Your task to perform on an android device: Show the shopping cart on amazon. Add "razer blade" to the cart on amazon, then select checkout. Image 0: 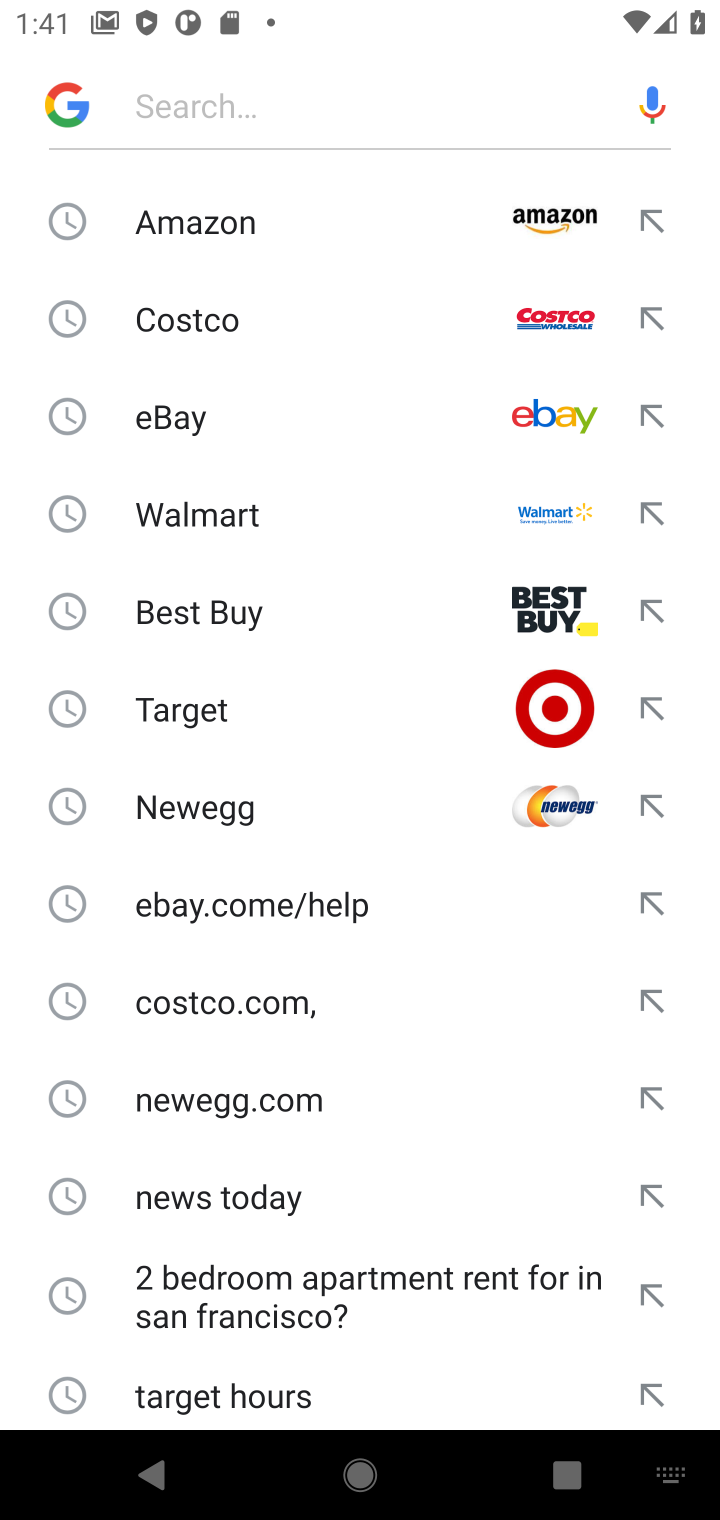
Step 0: click (233, 118)
Your task to perform on an android device: Show the shopping cart on amazon. Add "razer blade" to the cart on amazon, then select checkout. Image 1: 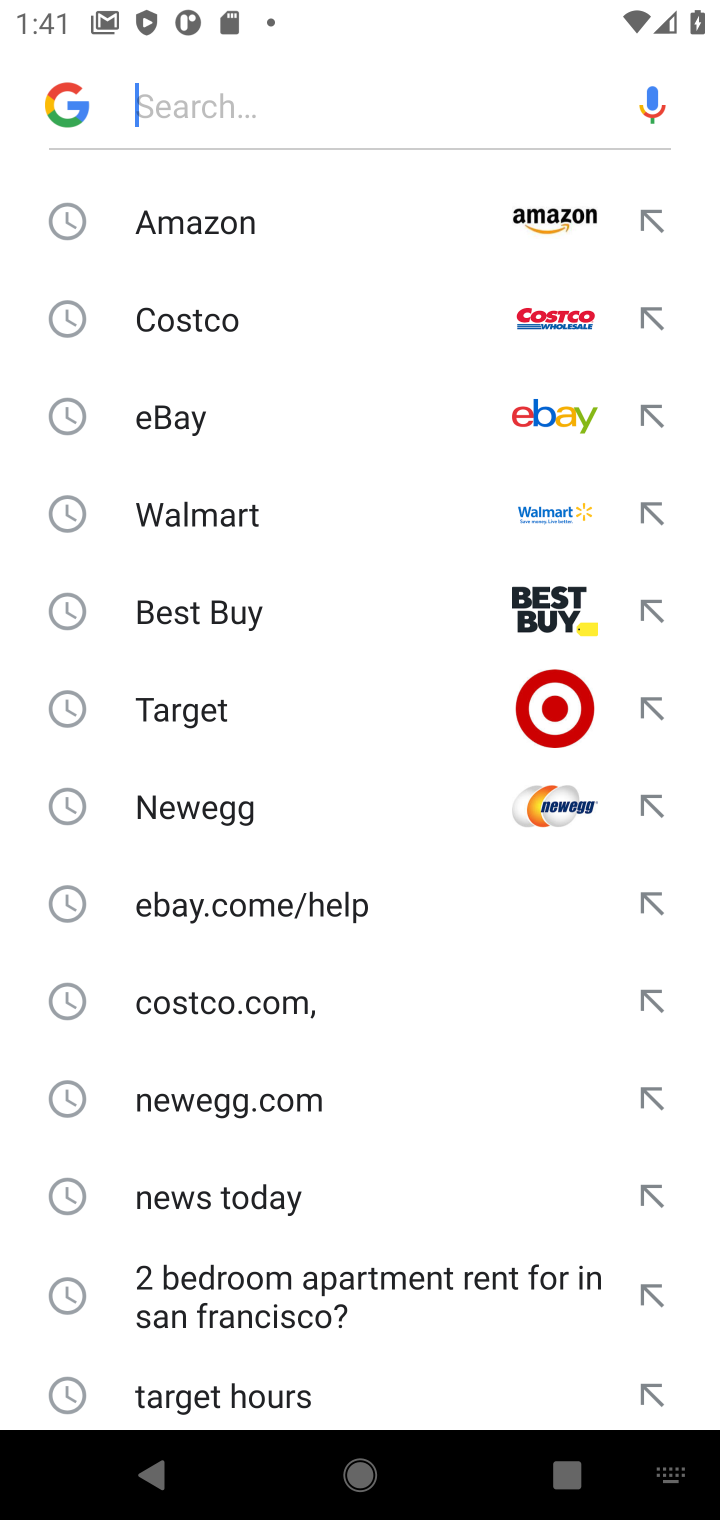
Step 1: type "amazon.com"
Your task to perform on an android device: Show the shopping cart on amazon. Add "razer blade" to the cart on amazon, then select checkout. Image 2: 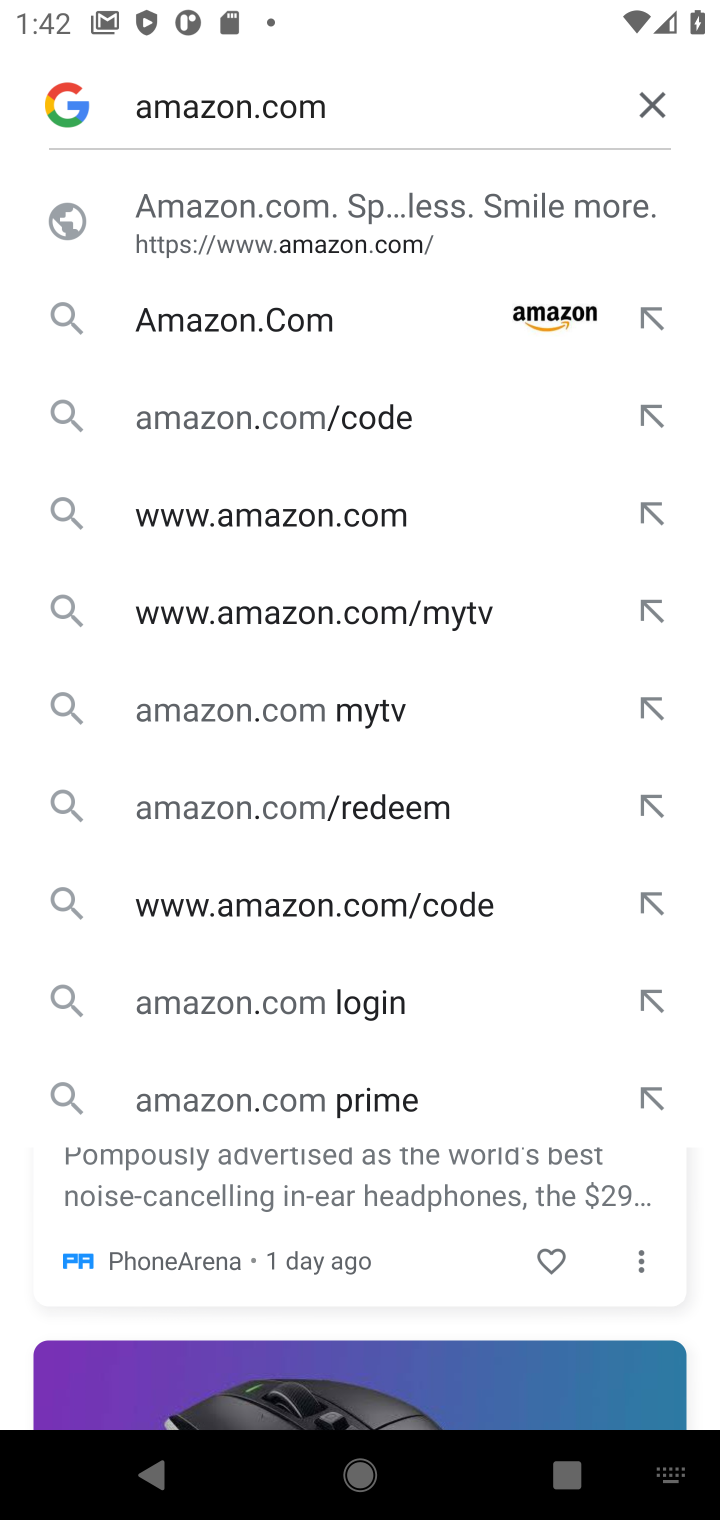
Step 2: click (213, 229)
Your task to perform on an android device: Show the shopping cart on amazon. Add "razer blade" to the cart on amazon, then select checkout. Image 3: 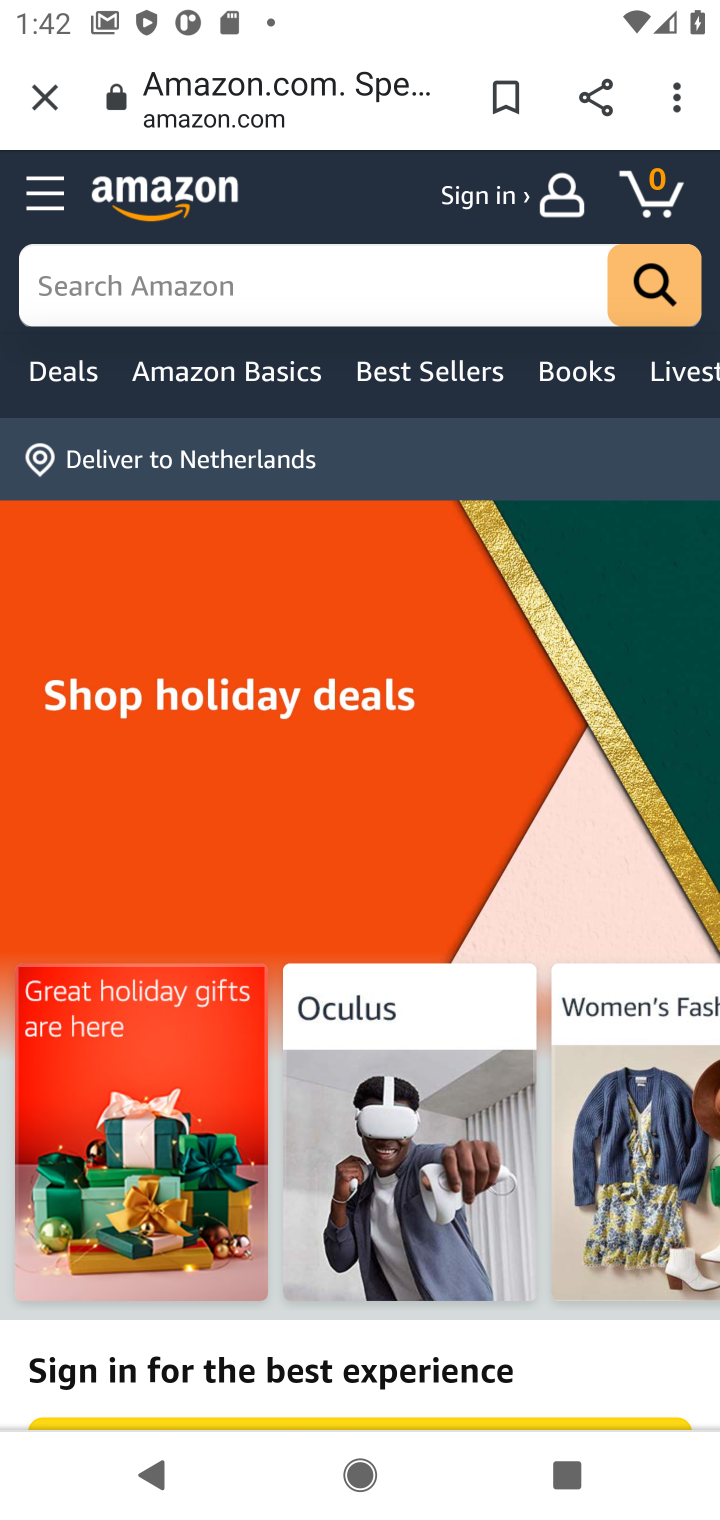
Step 3: click (652, 206)
Your task to perform on an android device: Show the shopping cart on amazon. Add "razer blade" to the cart on amazon, then select checkout. Image 4: 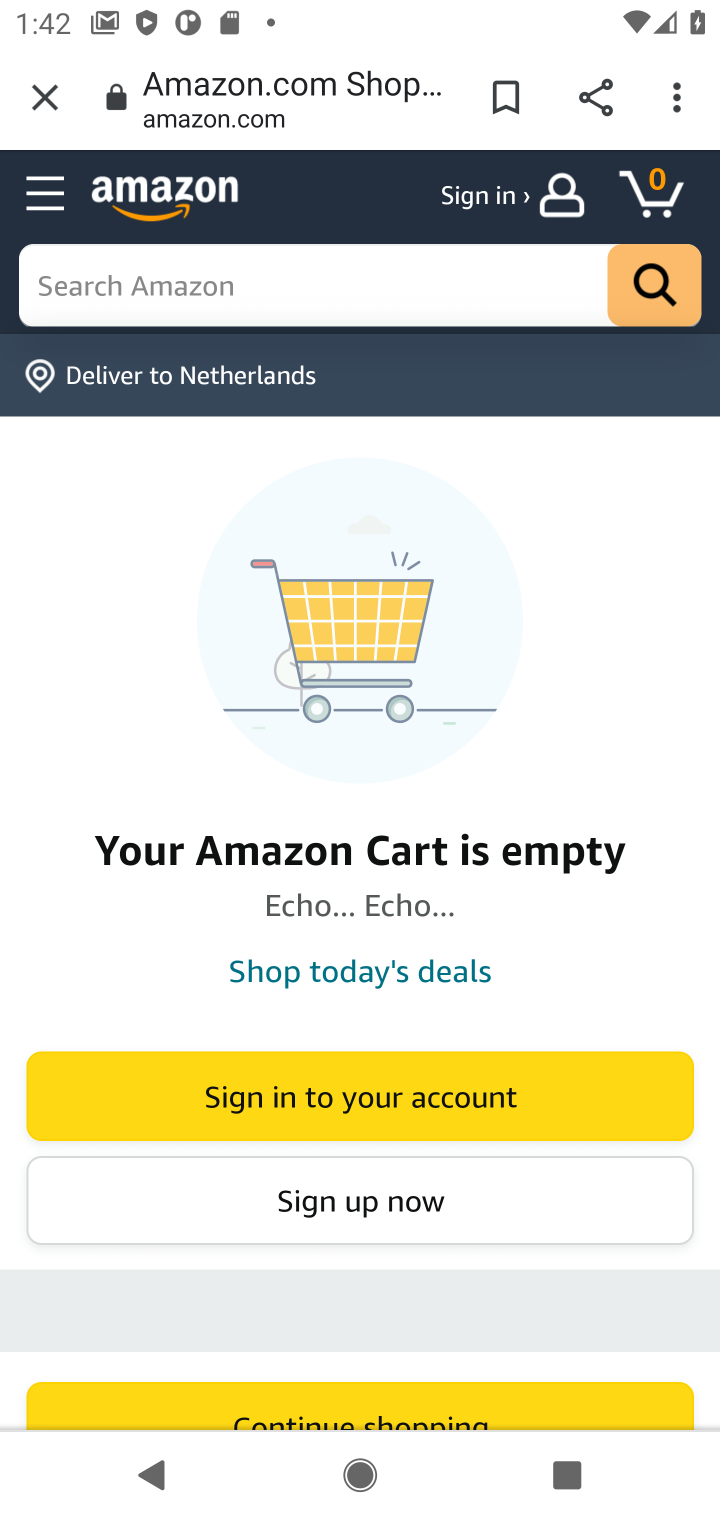
Step 4: click (112, 281)
Your task to perform on an android device: Show the shopping cart on amazon. Add "razer blade" to the cart on amazon, then select checkout. Image 5: 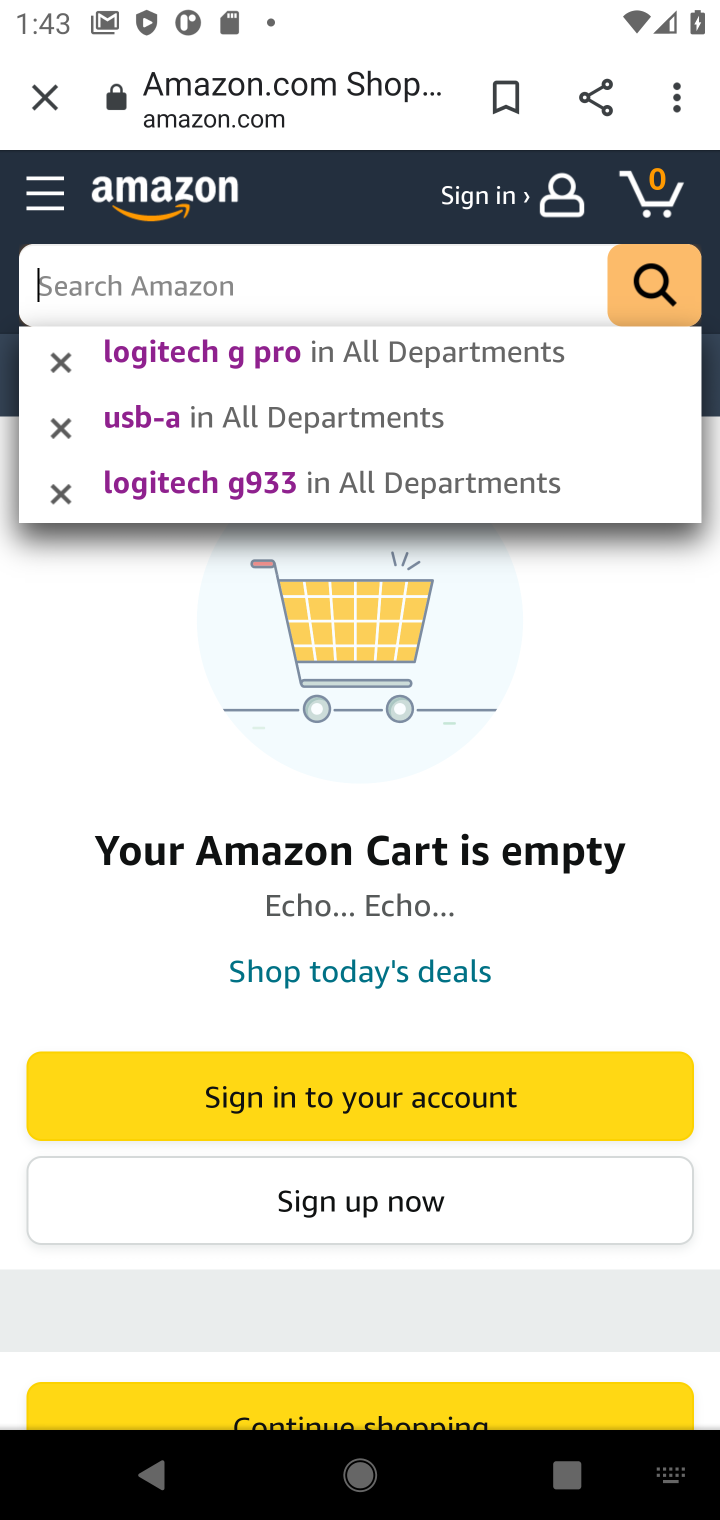
Step 5: type "razer blade"
Your task to perform on an android device: Show the shopping cart on amazon. Add "razer blade" to the cart on amazon, then select checkout. Image 6: 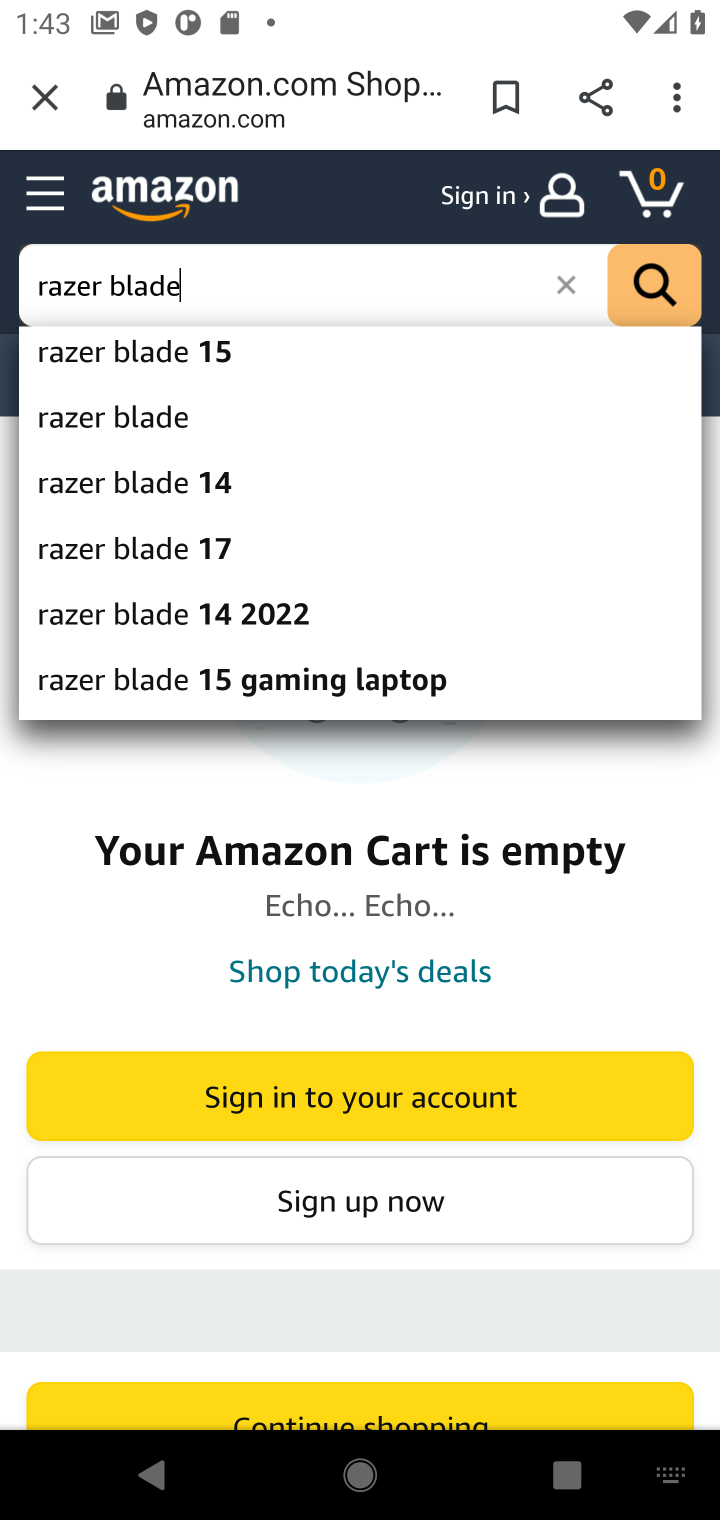
Step 6: click (117, 426)
Your task to perform on an android device: Show the shopping cart on amazon. Add "razer blade" to the cart on amazon, then select checkout. Image 7: 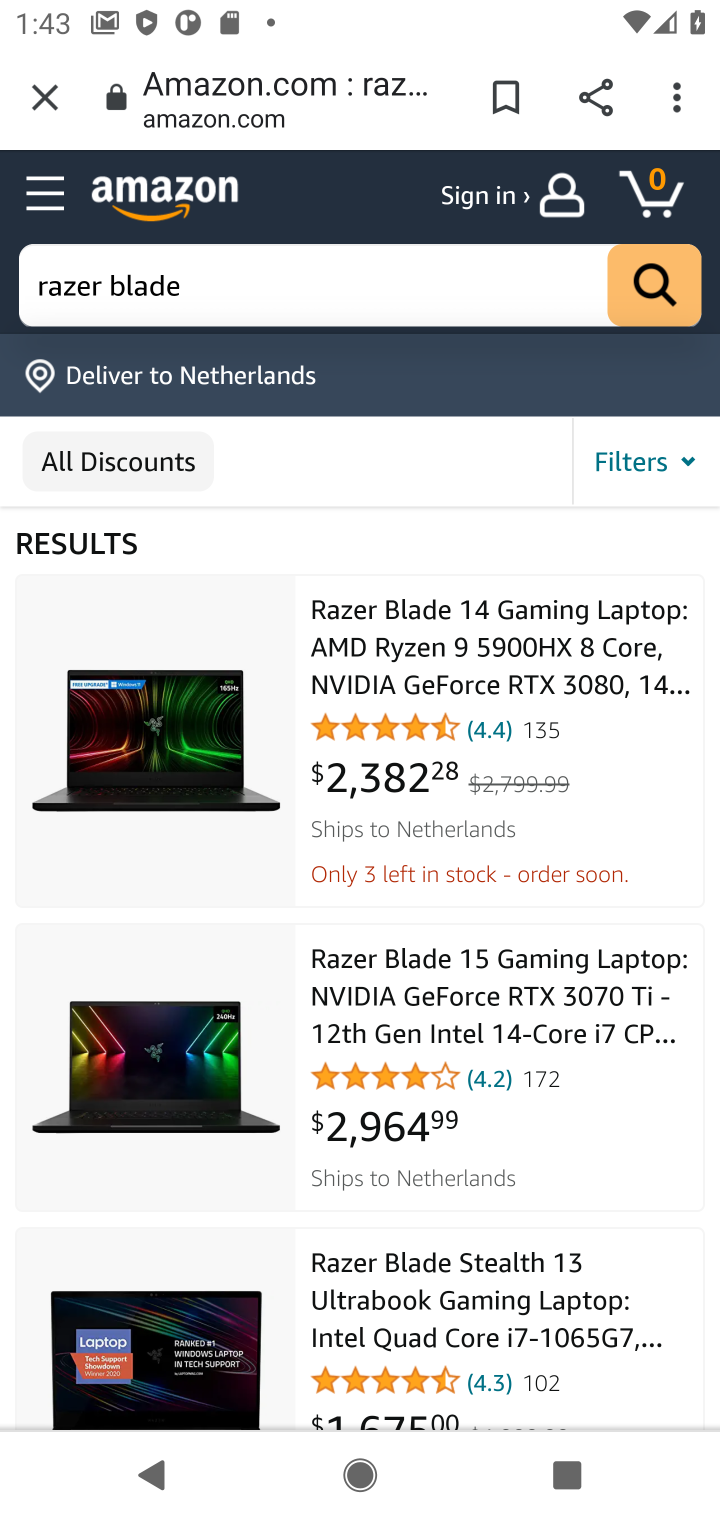
Step 7: click (419, 668)
Your task to perform on an android device: Show the shopping cart on amazon. Add "razer blade" to the cart on amazon, then select checkout. Image 8: 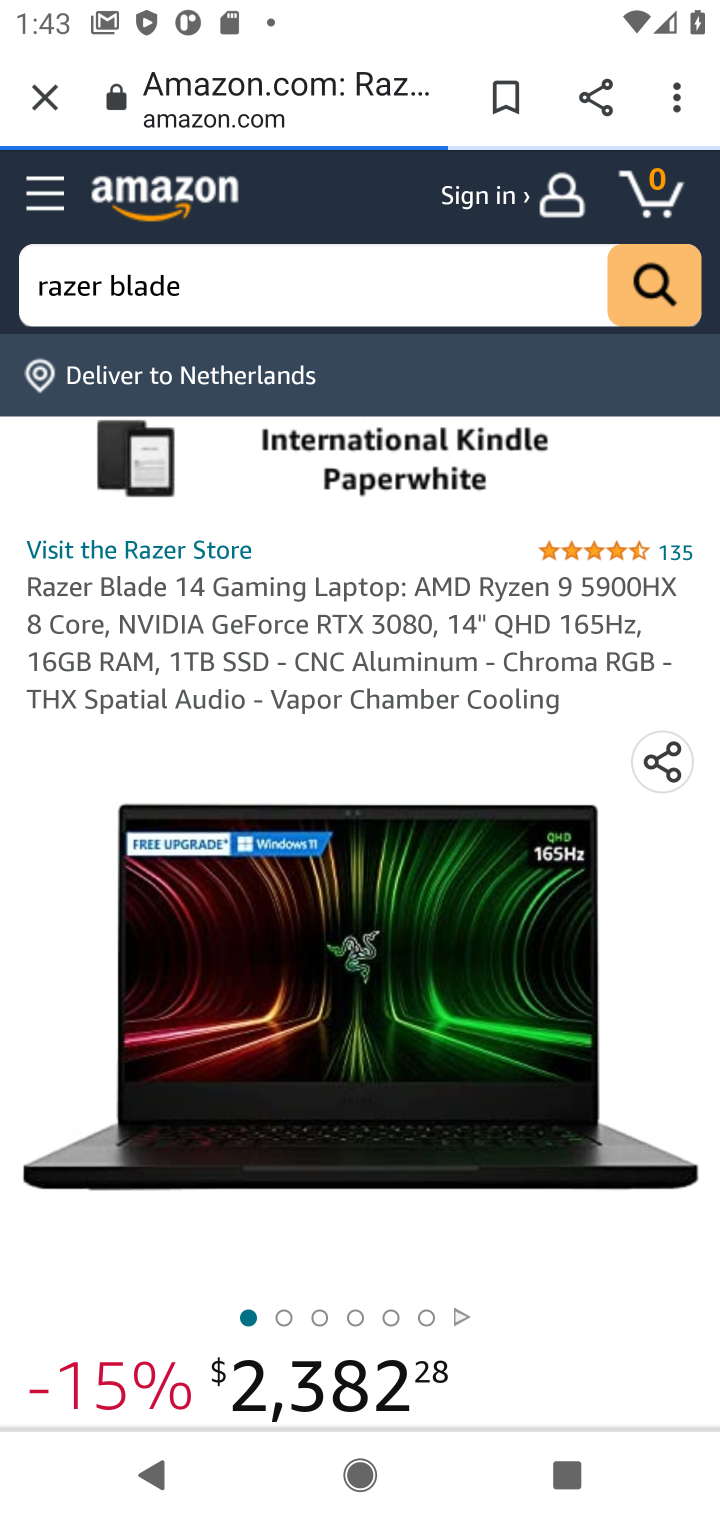
Step 8: drag from (374, 1093) to (384, 378)
Your task to perform on an android device: Show the shopping cart on amazon. Add "razer blade" to the cart on amazon, then select checkout. Image 9: 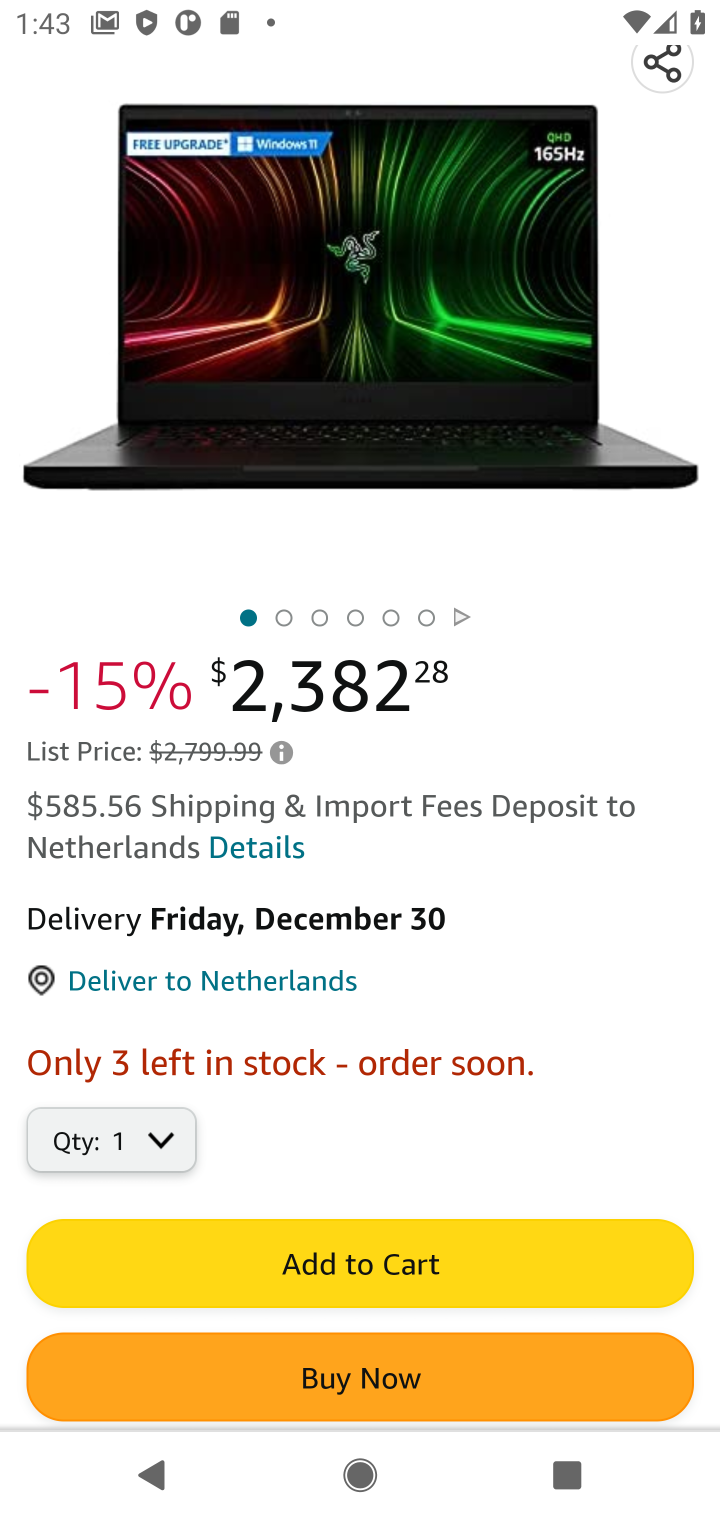
Step 9: drag from (361, 851) to (363, 588)
Your task to perform on an android device: Show the shopping cart on amazon. Add "razer blade" to the cart on amazon, then select checkout. Image 10: 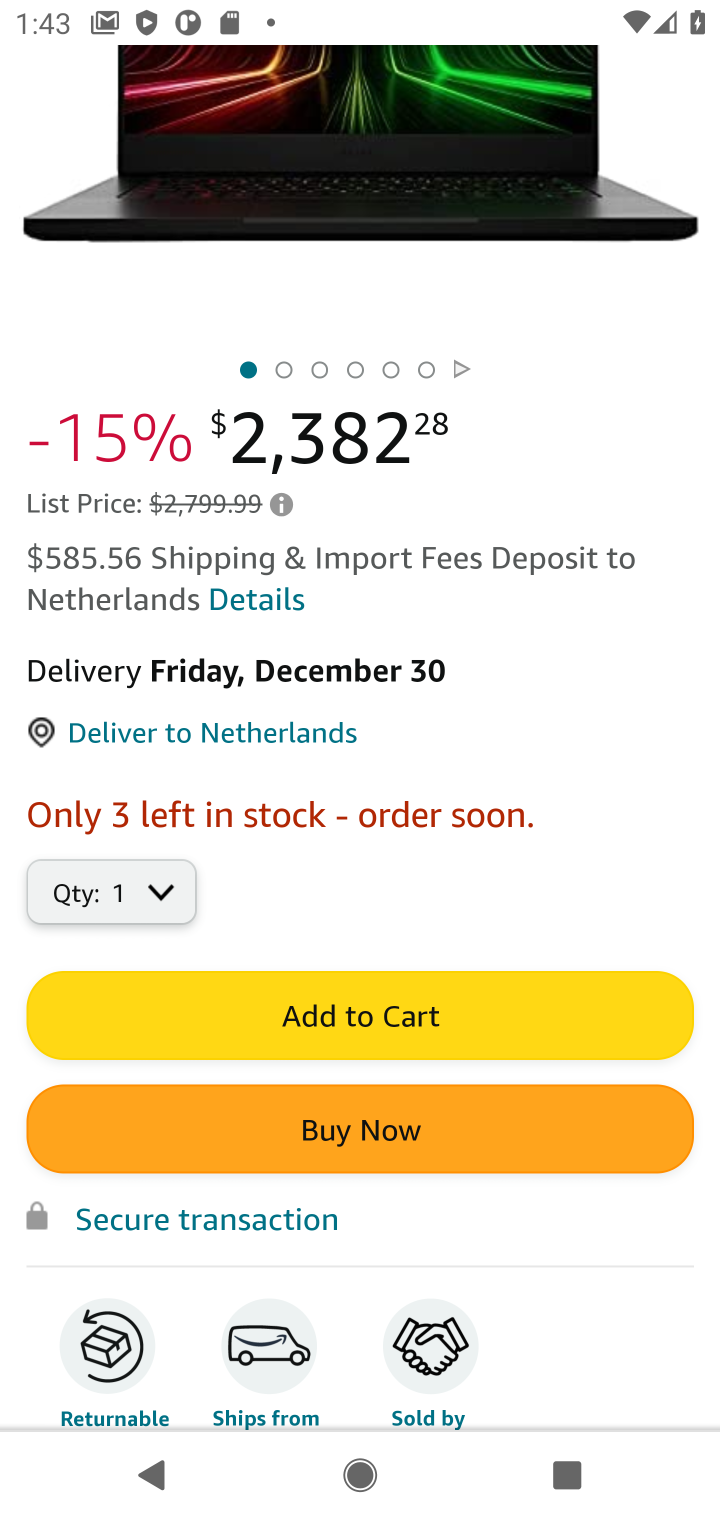
Step 10: click (306, 1012)
Your task to perform on an android device: Show the shopping cart on amazon. Add "razer blade" to the cart on amazon, then select checkout. Image 11: 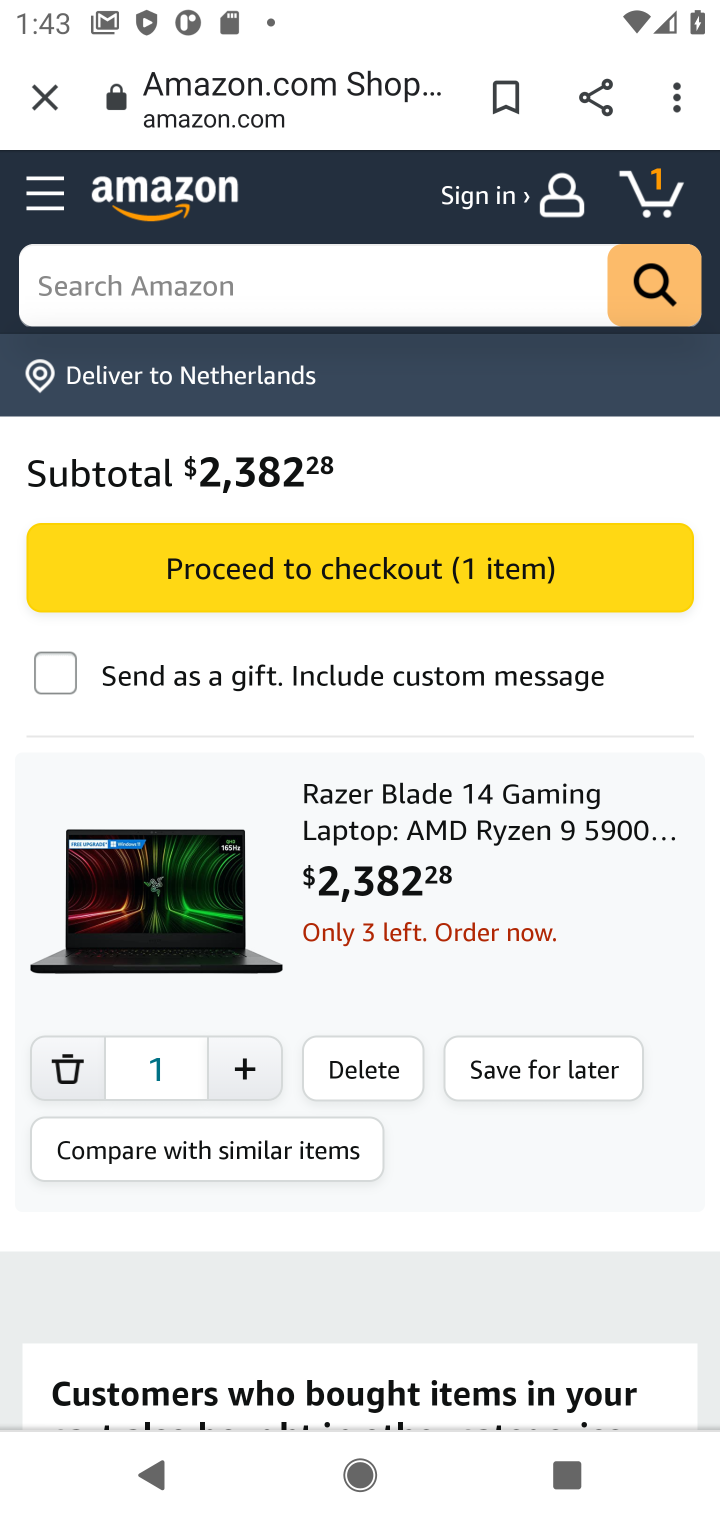
Step 11: click (326, 573)
Your task to perform on an android device: Show the shopping cart on amazon. Add "razer blade" to the cart on amazon, then select checkout. Image 12: 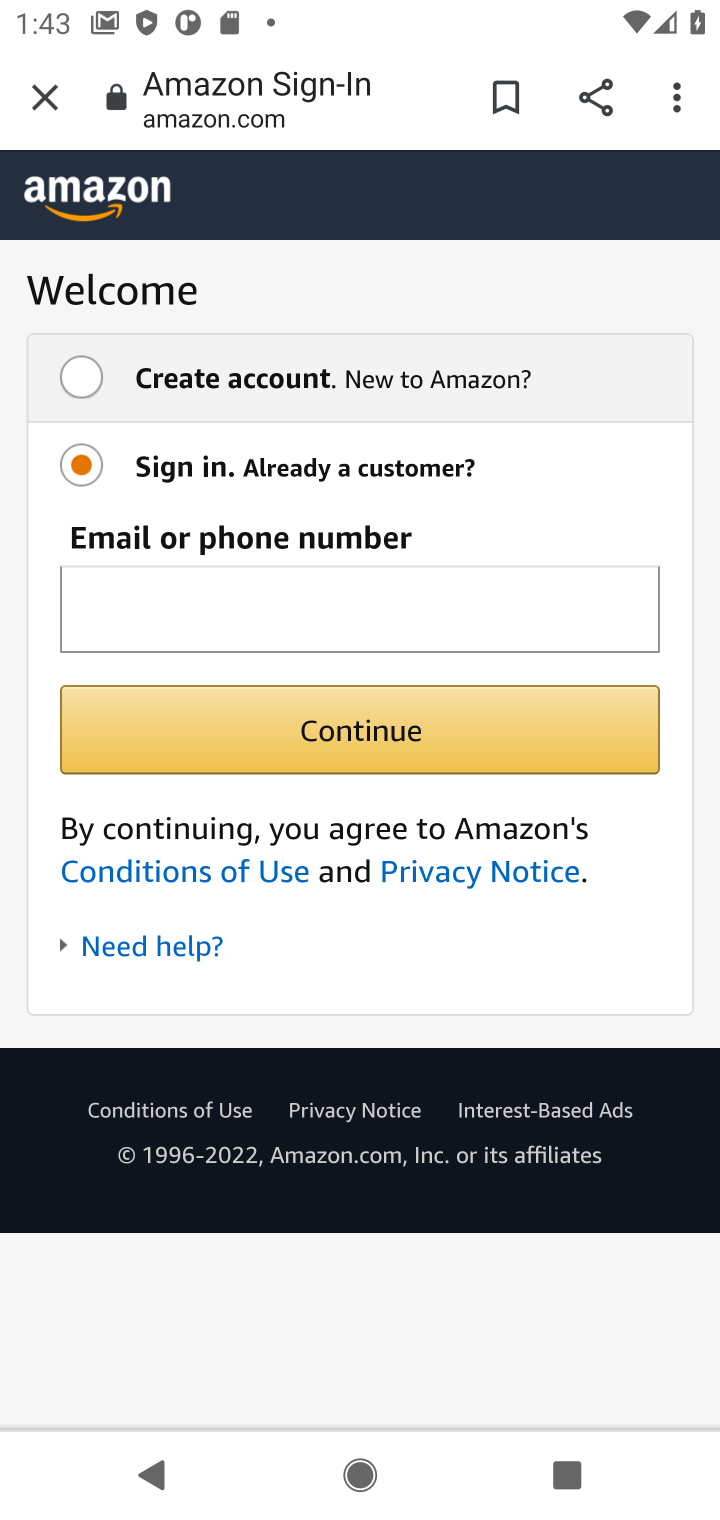
Step 12: task complete